Your task to perform on an android device: Open the Play Movies app and select the watchlist tab. Image 0: 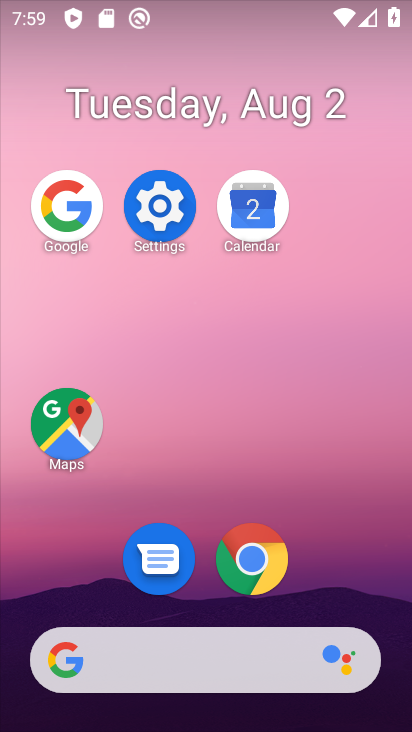
Step 0: drag from (363, 430) to (387, 82)
Your task to perform on an android device: Open the Play Movies app and select the watchlist tab. Image 1: 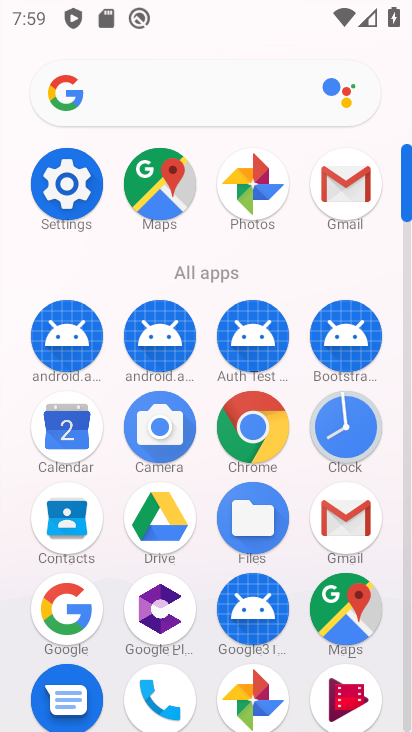
Step 1: drag from (218, 570) to (204, 215)
Your task to perform on an android device: Open the Play Movies app and select the watchlist tab. Image 2: 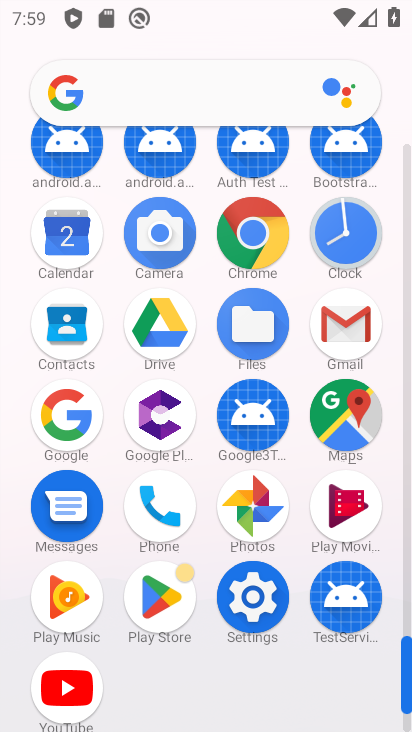
Step 2: click (354, 509)
Your task to perform on an android device: Open the Play Movies app and select the watchlist tab. Image 3: 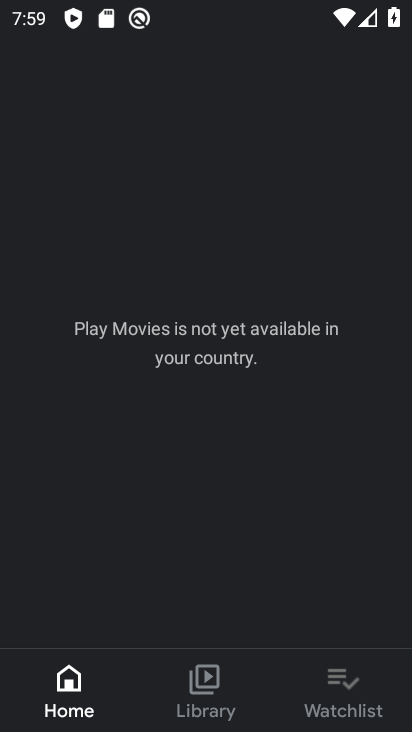
Step 3: click (338, 674)
Your task to perform on an android device: Open the Play Movies app and select the watchlist tab. Image 4: 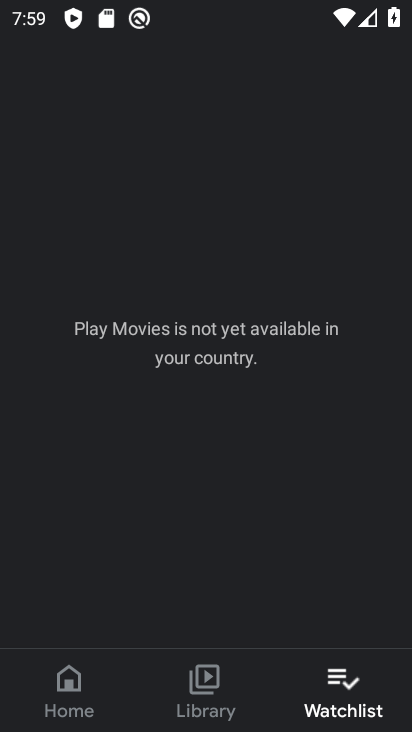
Step 4: task complete